Your task to perform on an android device: What's the weather today? Image 0: 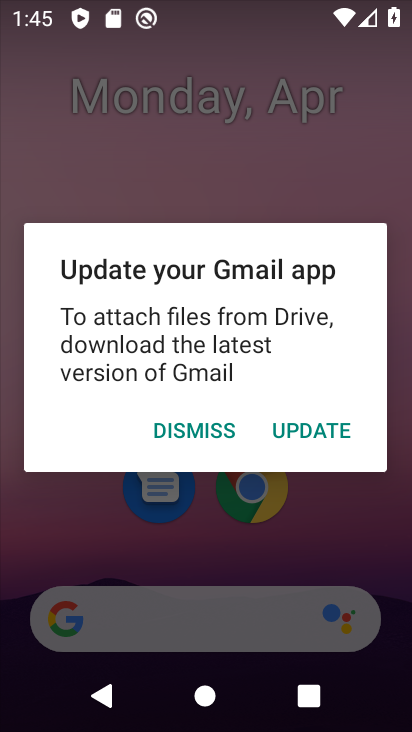
Step 0: press home button
Your task to perform on an android device: What's the weather today? Image 1: 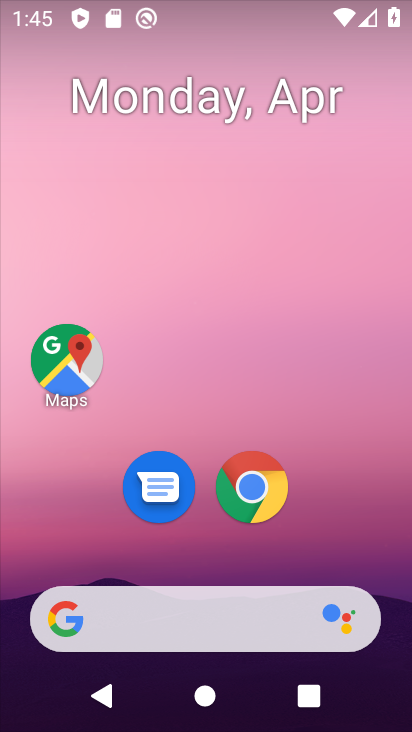
Step 1: drag from (294, 637) to (218, 162)
Your task to perform on an android device: What's the weather today? Image 2: 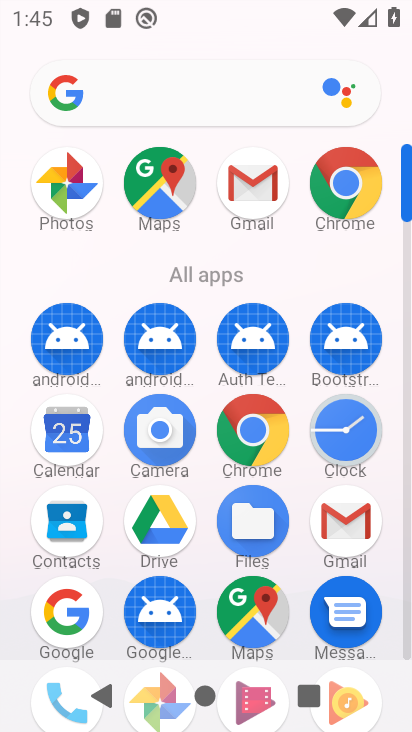
Step 2: click (179, 112)
Your task to perform on an android device: What's the weather today? Image 3: 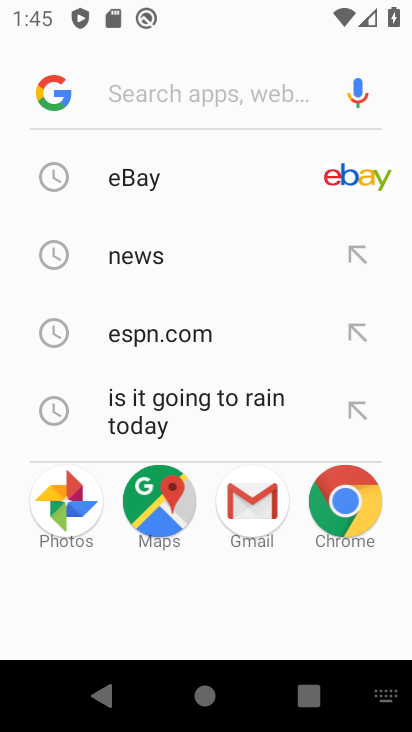
Step 3: click (395, 708)
Your task to perform on an android device: What's the weather today? Image 4: 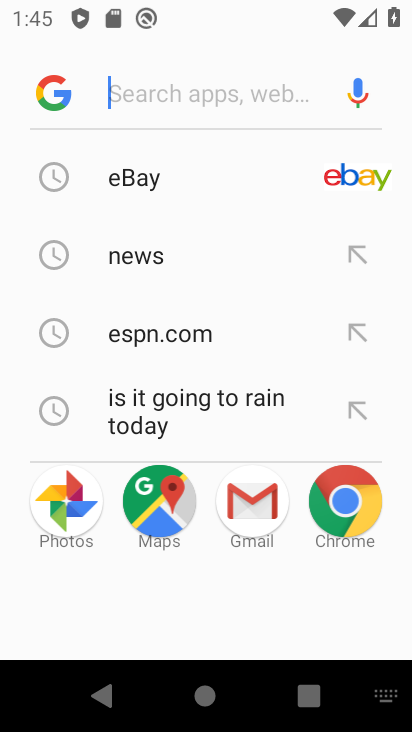
Step 4: click (389, 651)
Your task to perform on an android device: What's the weather today? Image 5: 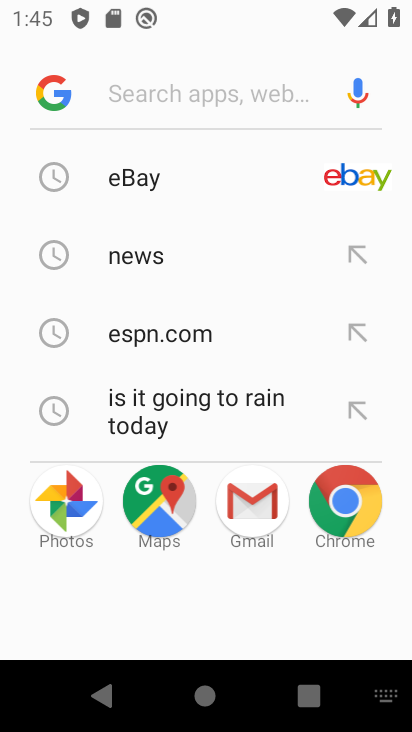
Step 5: drag from (385, 712) to (386, 640)
Your task to perform on an android device: What's the weather today? Image 6: 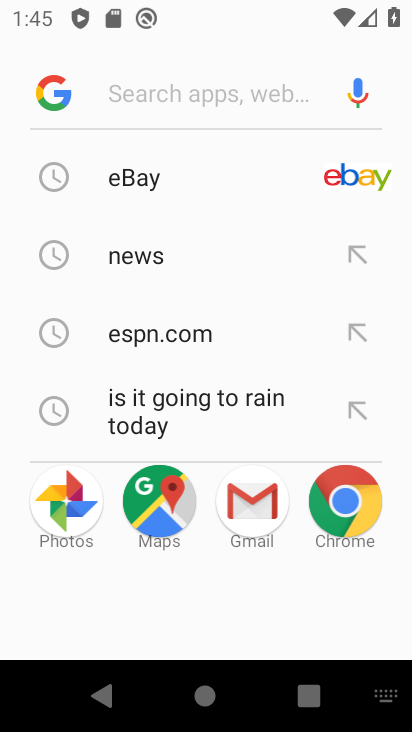
Step 6: click (395, 696)
Your task to perform on an android device: What's the weather today? Image 7: 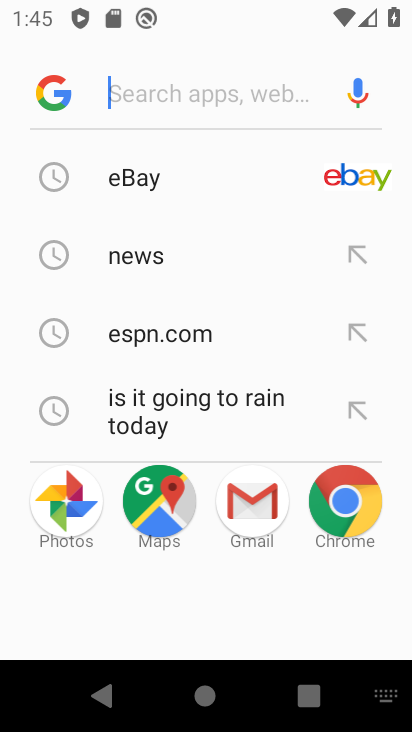
Step 7: click (171, 111)
Your task to perform on an android device: What's the weather today? Image 8: 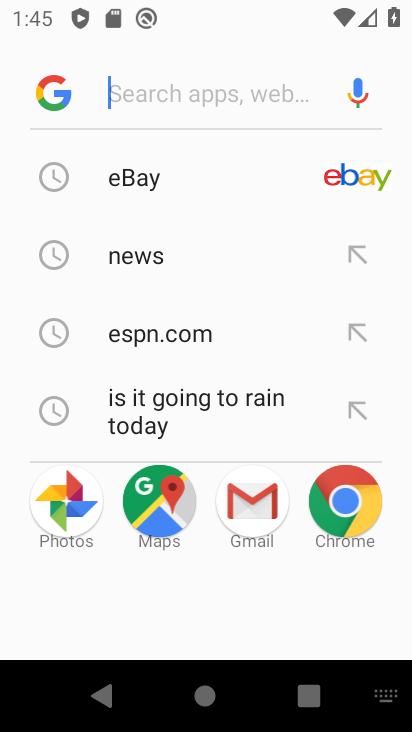
Step 8: drag from (387, 692) to (401, 633)
Your task to perform on an android device: What's the weather today? Image 9: 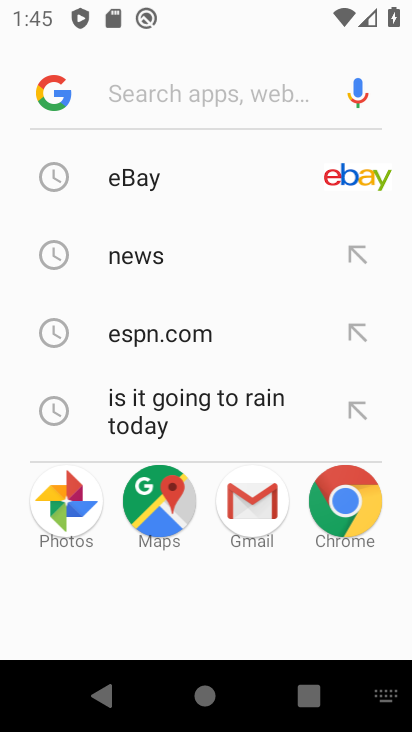
Step 9: click (389, 705)
Your task to perform on an android device: What's the weather today? Image 10: 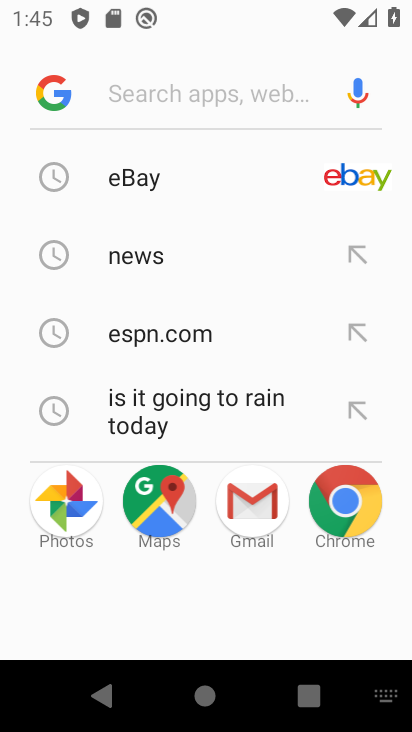
Step 10: click (390, 698)
Your task to perform on an android device: What's the weather today? Image 11: 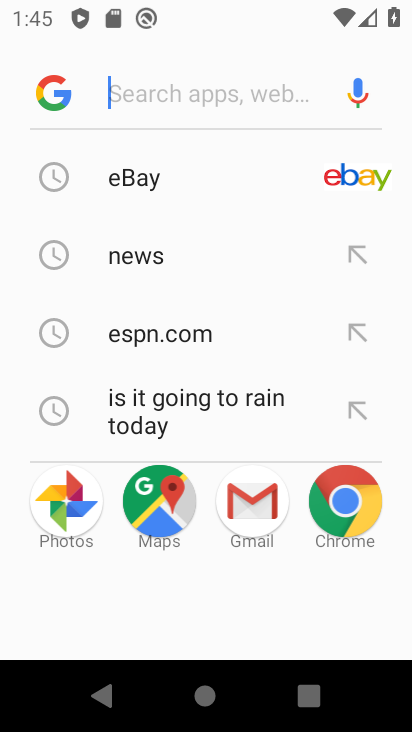
Step 11: click (391, 700)
Your task to perform on an android device: What's the weather today? Image 12: 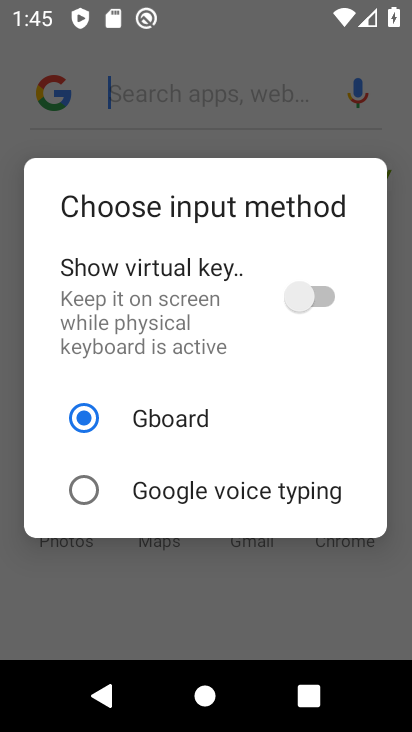
Step 12: click (310, 300)
Your task to perform on an android device: What's the weather today? Image 13: 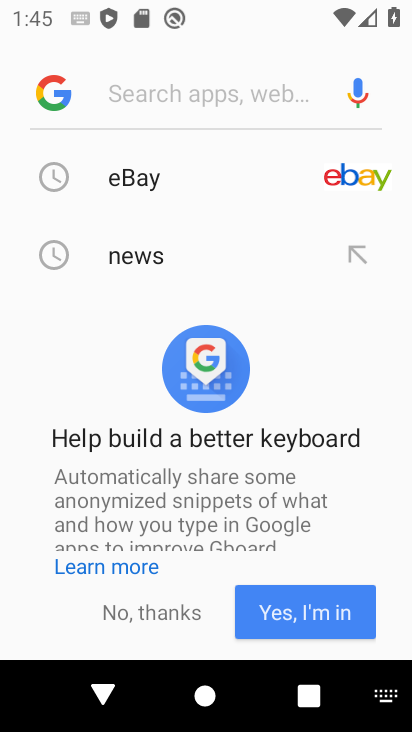
Step 13: click (179, 618)
Your task to perform on an android device: What's the weather today? Image 14: 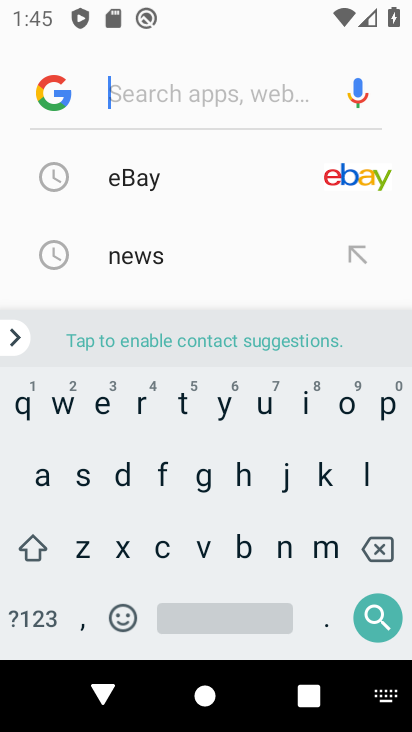
Step 14: click (65, 416)
Your task to perform on an android device: What's the weather today? Image 15: 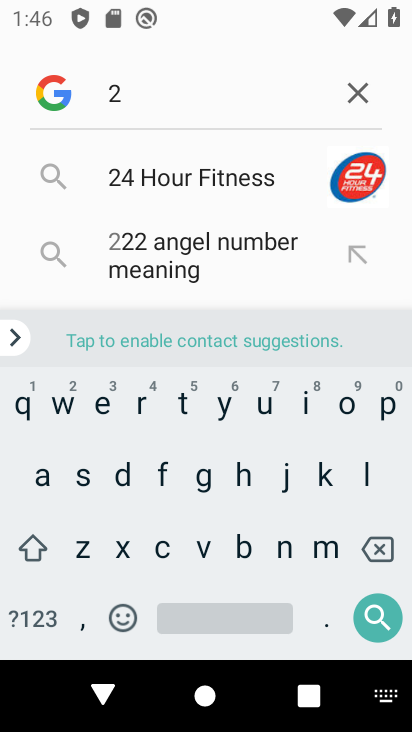
Step 15: click (377, 551)
Your task to perform on an android device: What's the weather today? Image 16: 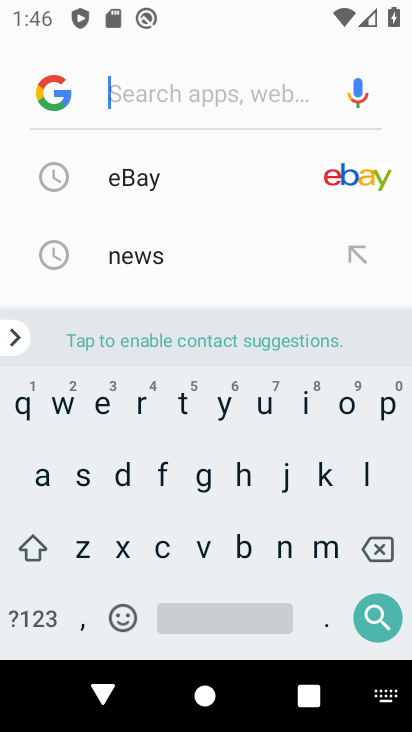
Step 16: click (61, 410)
Your task to perform on an android device: What's the weather today? Image 17: 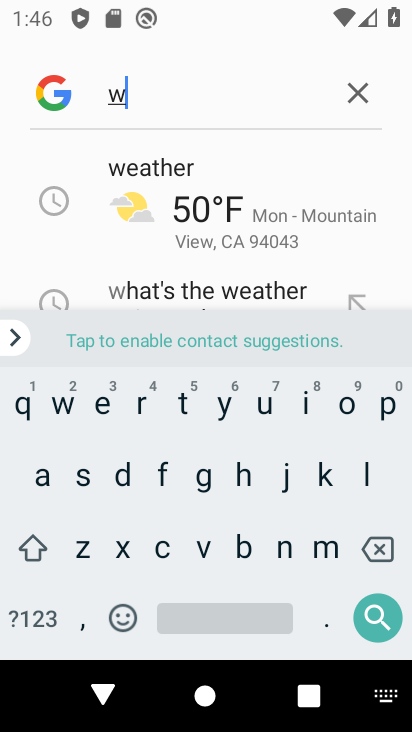
Step 17: click (181, 180)
Your task to perform on an android device: What's the weather today? Image 18: 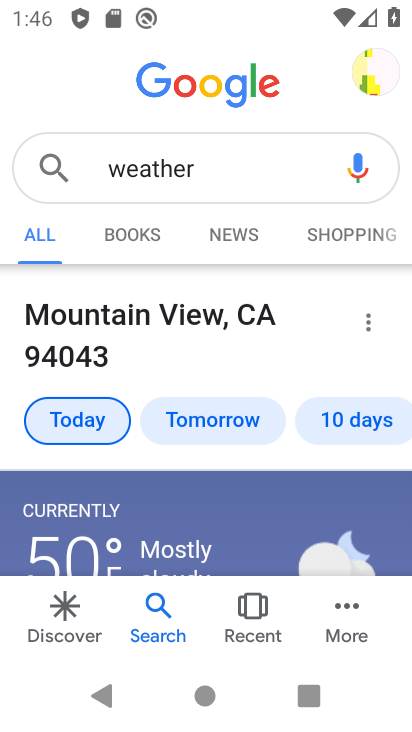
Step 18: task complete